Your task to perform on an android device: Go to Google Image 0: 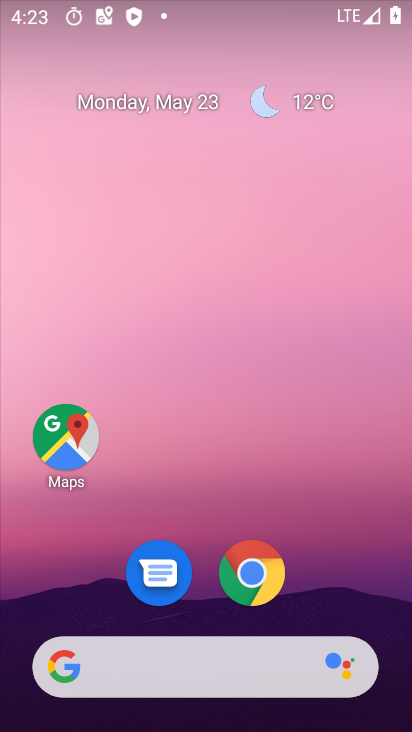
Step 0: click (84, 671)
Your task to perform on an android device: Go to Google Image 1: 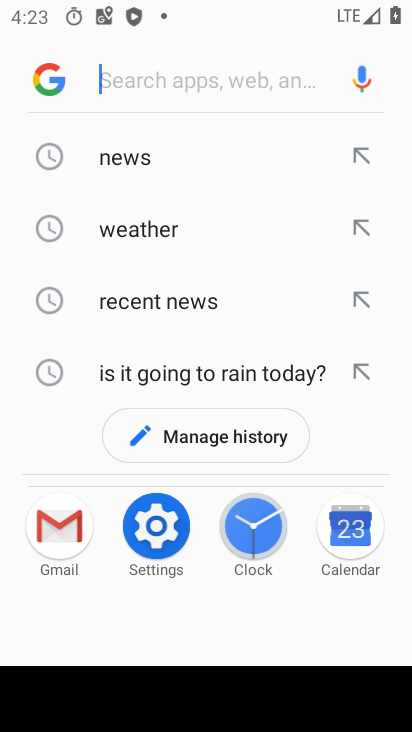
Step 1: click (48, 90)
Your task to perform on an android device: Go to Google Image 2: 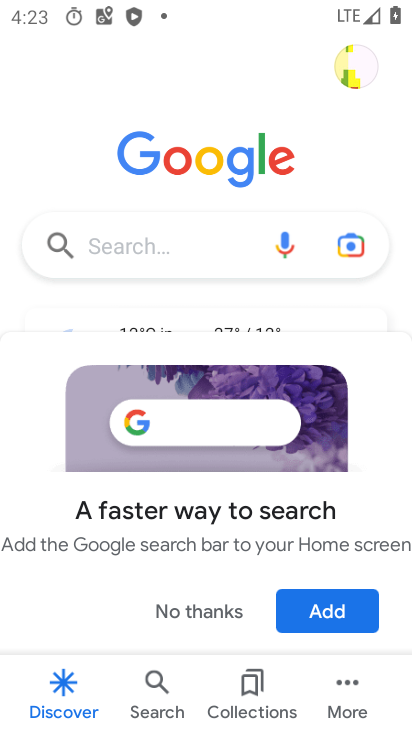
Step 2: task complete